Your task to perform on an android device: delete the emails in spam in the gmail app Image 0: 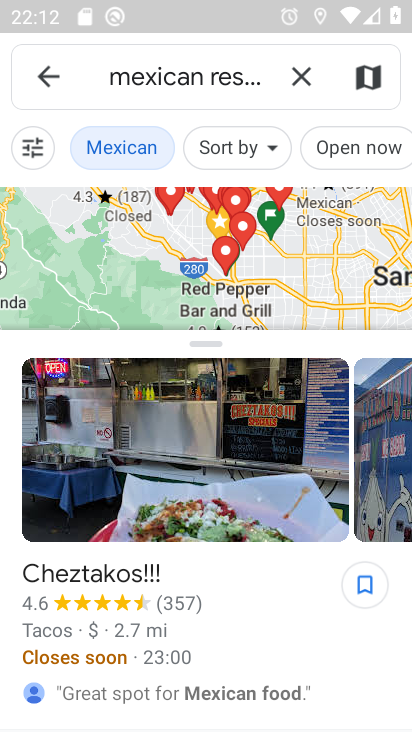
Step 0: press home button
Your task to perform on an android device: delete the emails in spam in the gmail app Image 1: 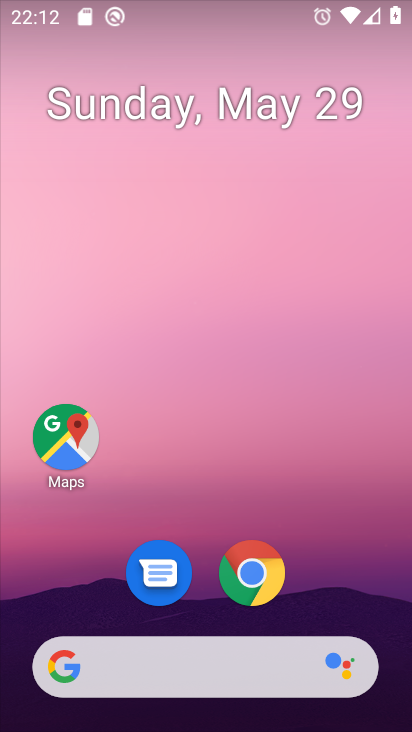
Step 1: drag from (224, 515) to (261, 70)
Your task to perform on an android device: delete the emails in spam in the gmail app Image 2: 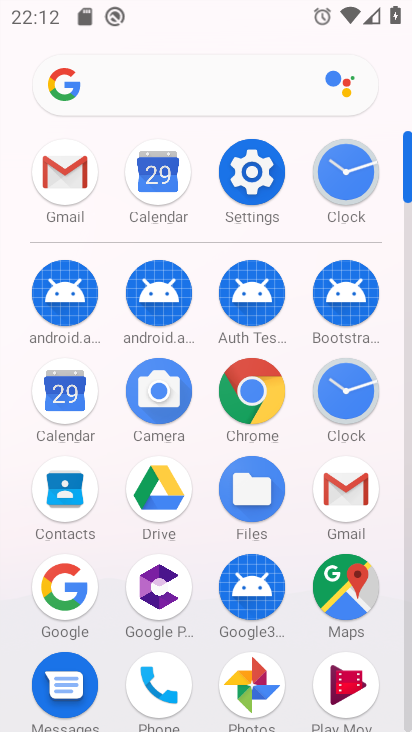
Step 2: click (64, 193)
Your task to perform on an android device: delete the emails in spam in the gmail app Image 3: 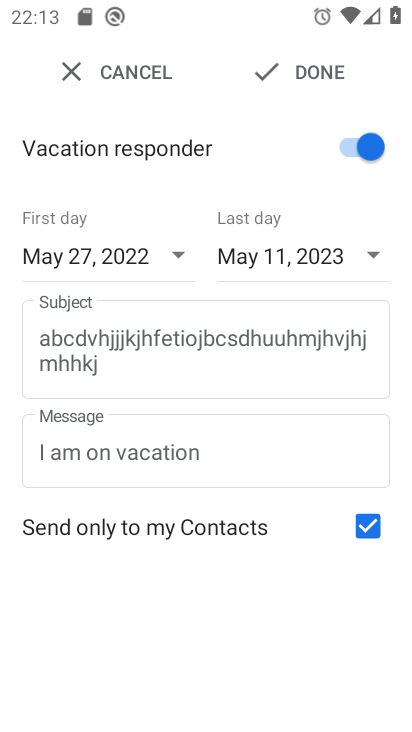
Step 3: press back button
Your task to perform on an android device: delete the emails in spam in the gmail app Image 4: 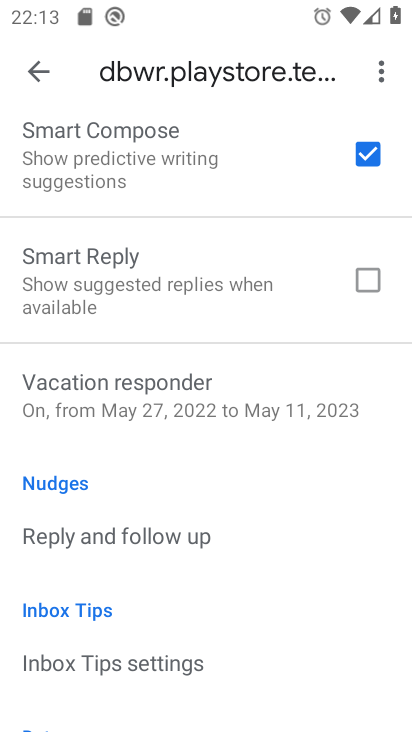
Step 4: click (38, 64)
Your task to perform on an android device: delete the emails in spam in the gmail app Image 5: 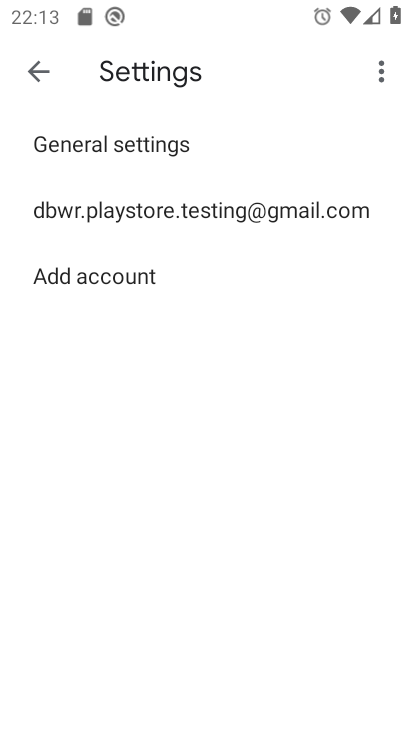
Step 5: click (38, 64)
Your task to perform on an android device: delete the emails in spam in the gmail app Image 6: 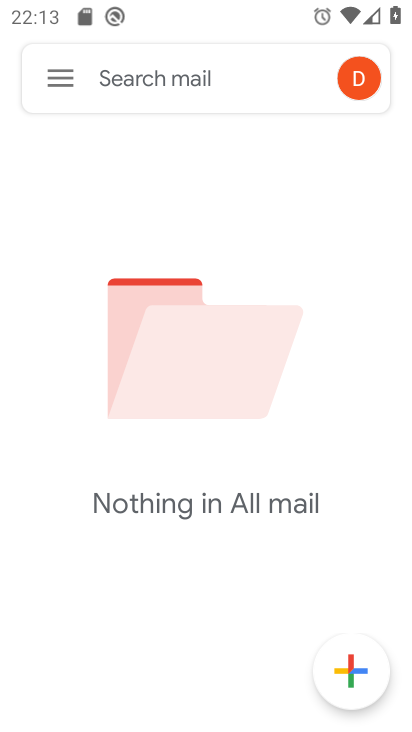
Step 6: click (63, 75)
Your task to perform on an android device: delete the emails in spam in the gmail app Image 7: 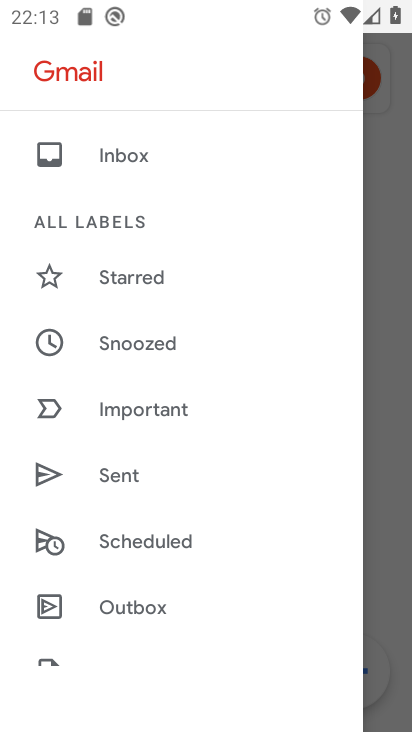
Step 7: drag from (180, 501) to (199, 116)
Your task to perform on an android device: delete the emails in spam in the gmail app Image 8: 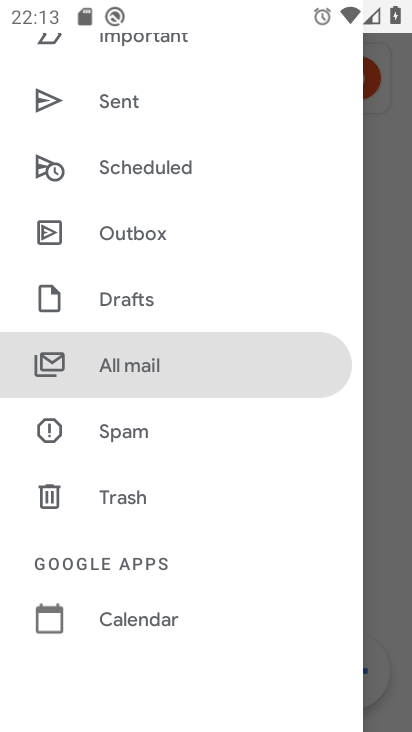
Step 8: click (191, 425)
Your task to perform on an android device: delete the emails in spam in the gmail app Image 9: 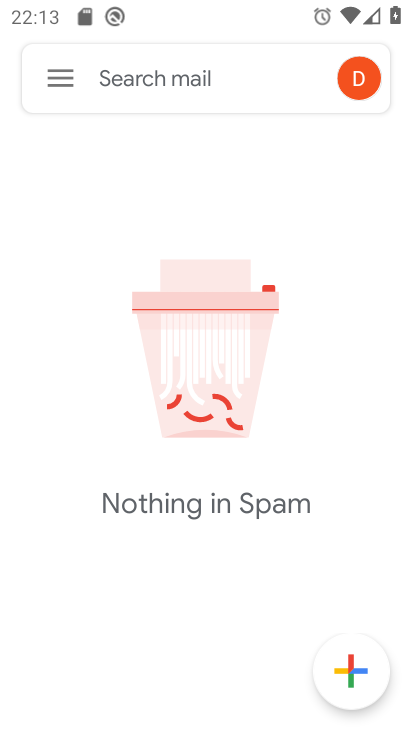
Step 9: task complete